Your task to perform on an android device: open app "DuckDuckGo Privacy Browser" (install if not already installed) Image 0: 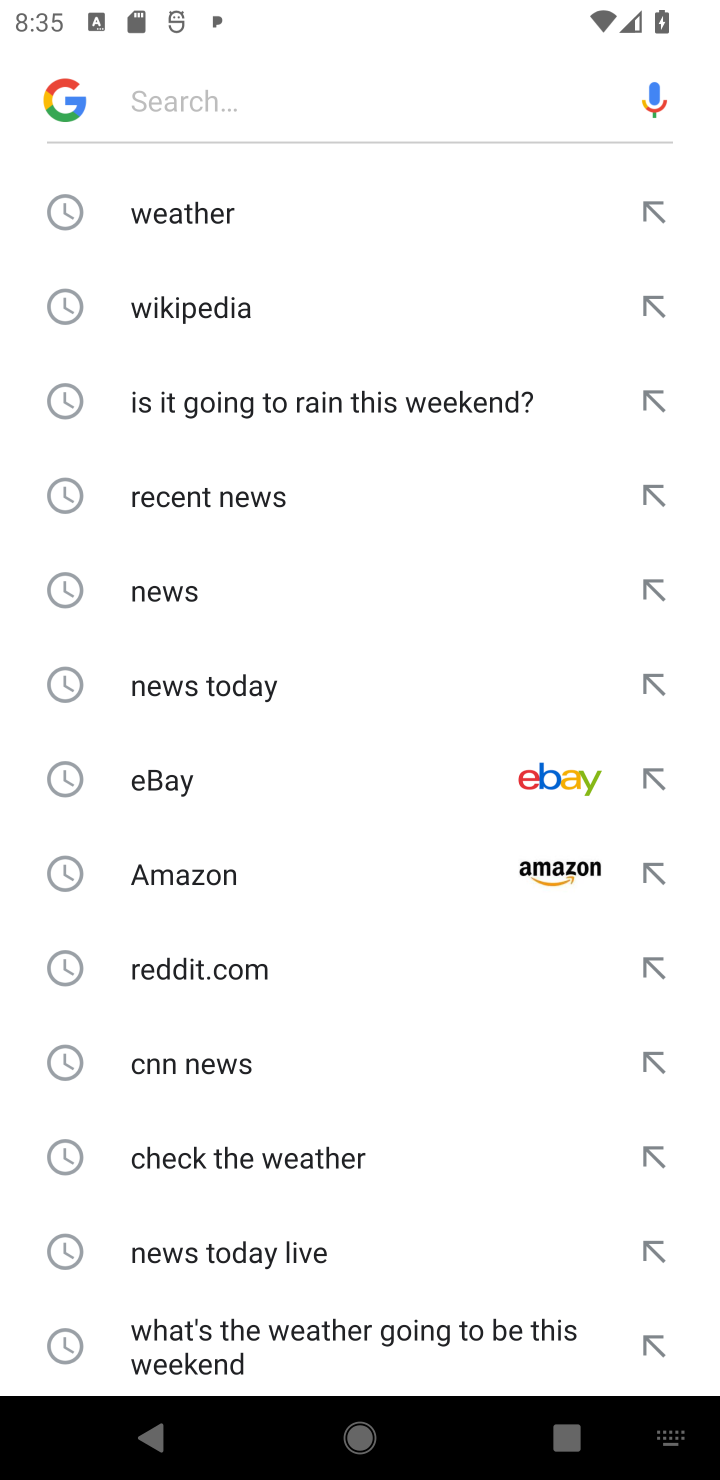
Step 0: press home button
Your task to perform on an android device: open app "DuckDuckGo Privacy Browser" (install if not already installed) Image 1: 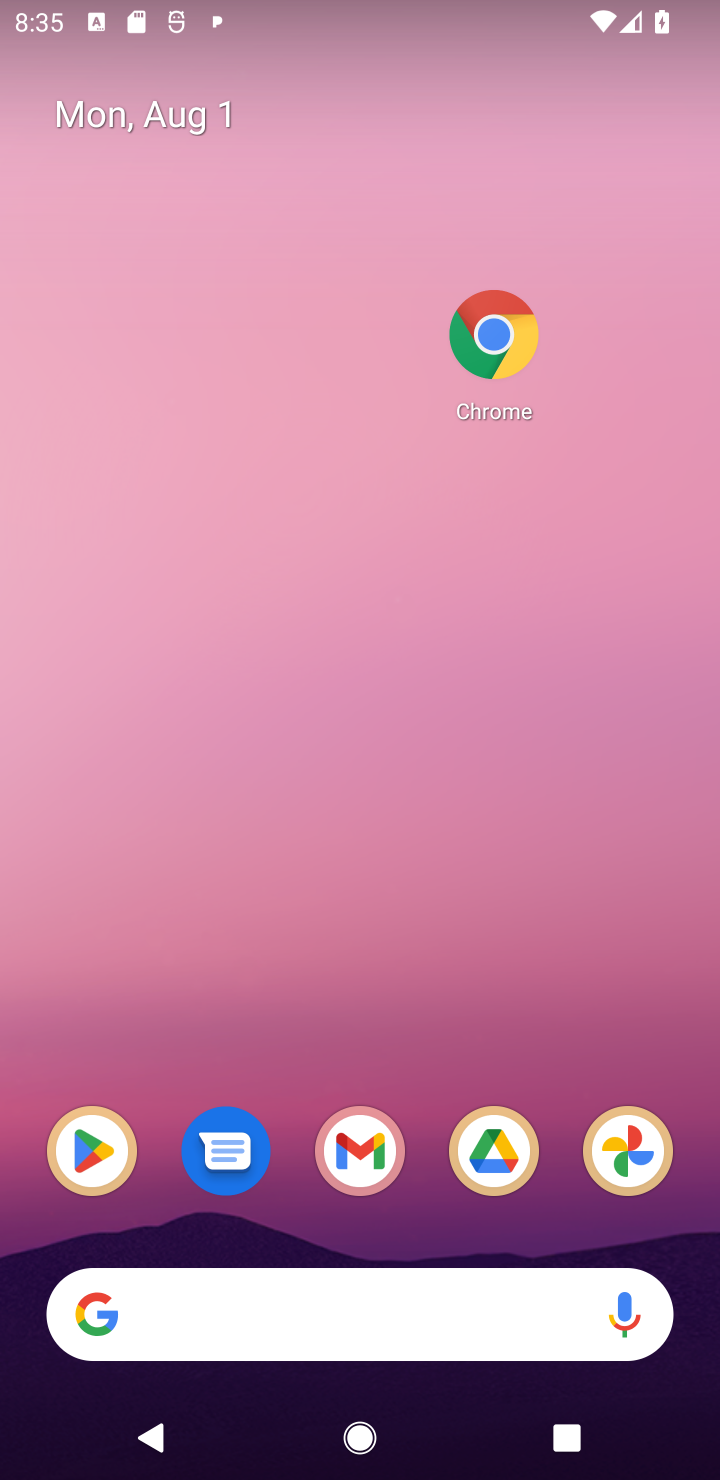
Step 1: click (81, 1165)
Your task to perform on an android device: open app "DuckDuckGo Privacy Browser" (install if not already installed) Image 2: 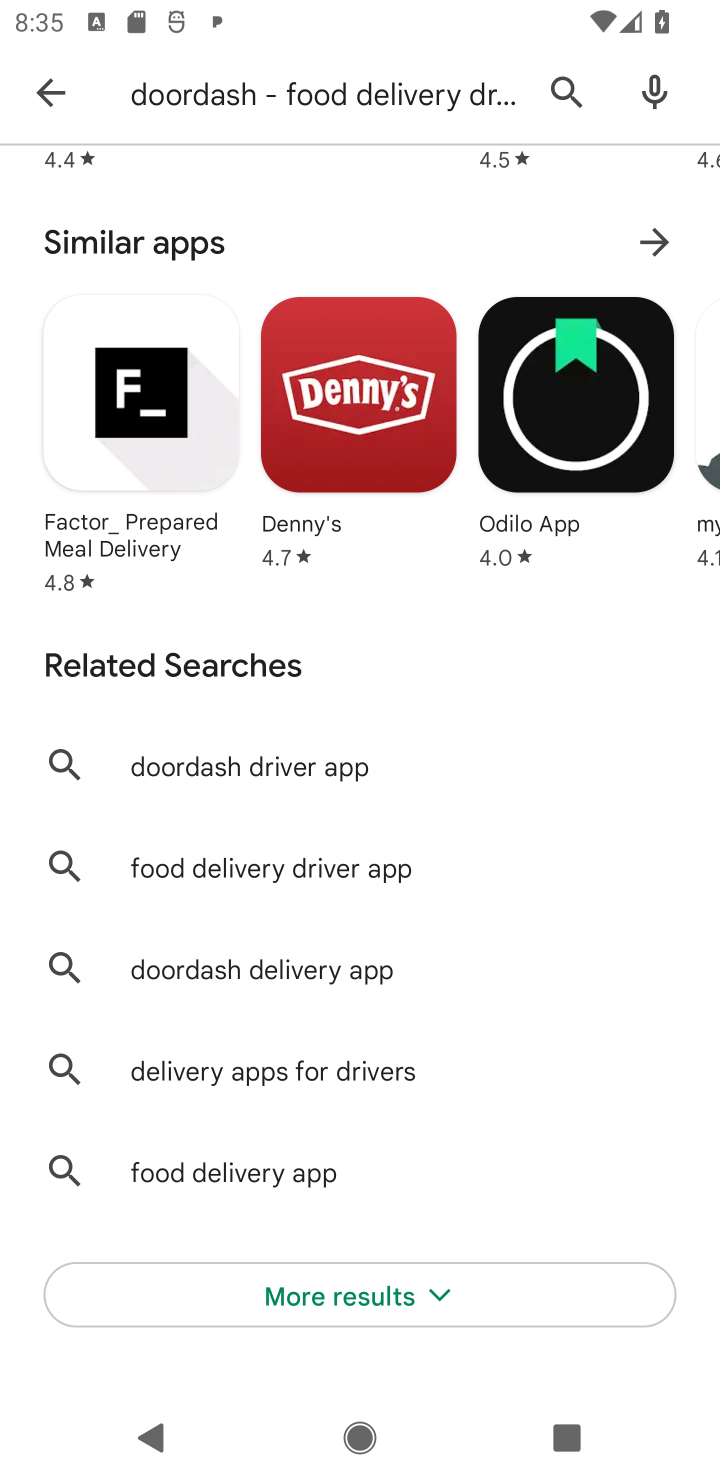
Step 2: click (548, 83)
Your task to perform on an android device: open app "DuckDuckGo Privacy Browser" (install if not already installed) Image 3: 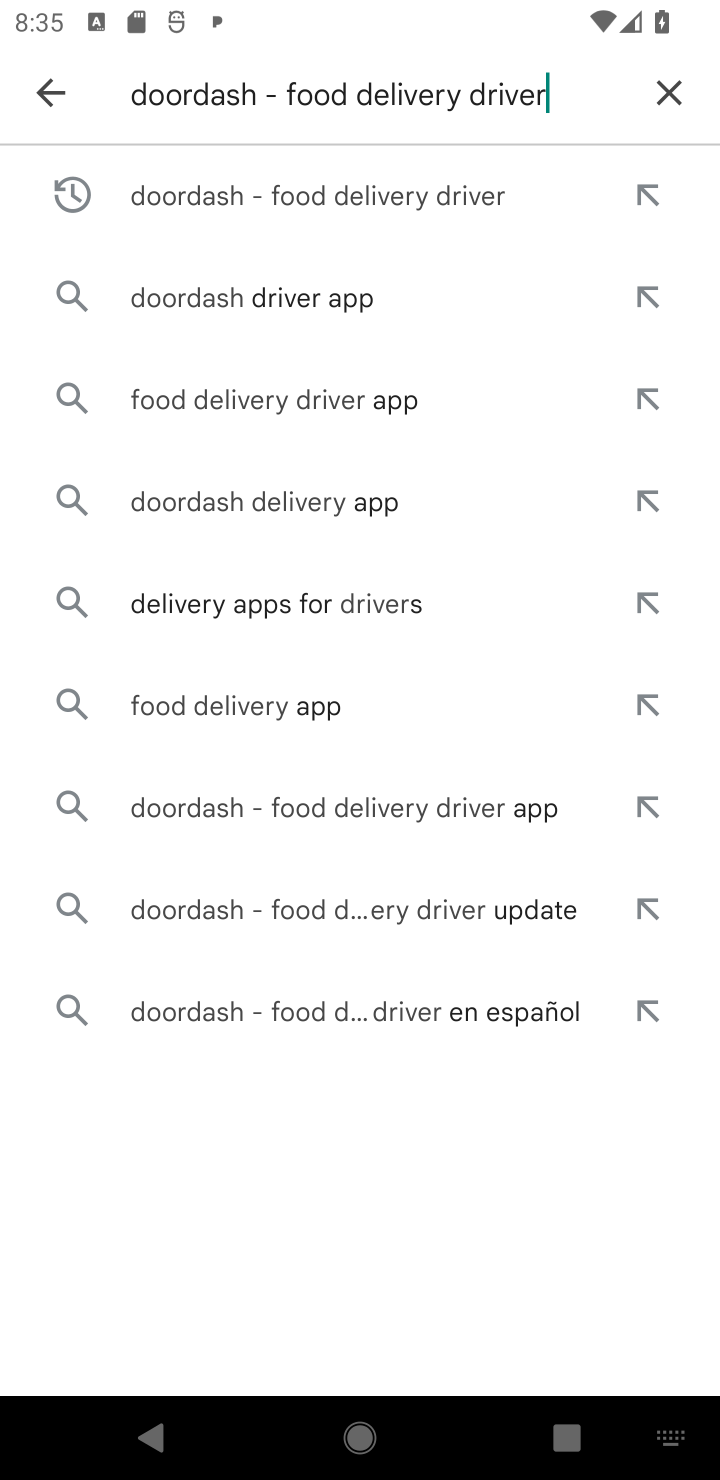
Step 3: click (672, 92)
Your task to perform on an android device: open app "DuckDuckGo Privacy Browser" (install if not already installed) Image 4: 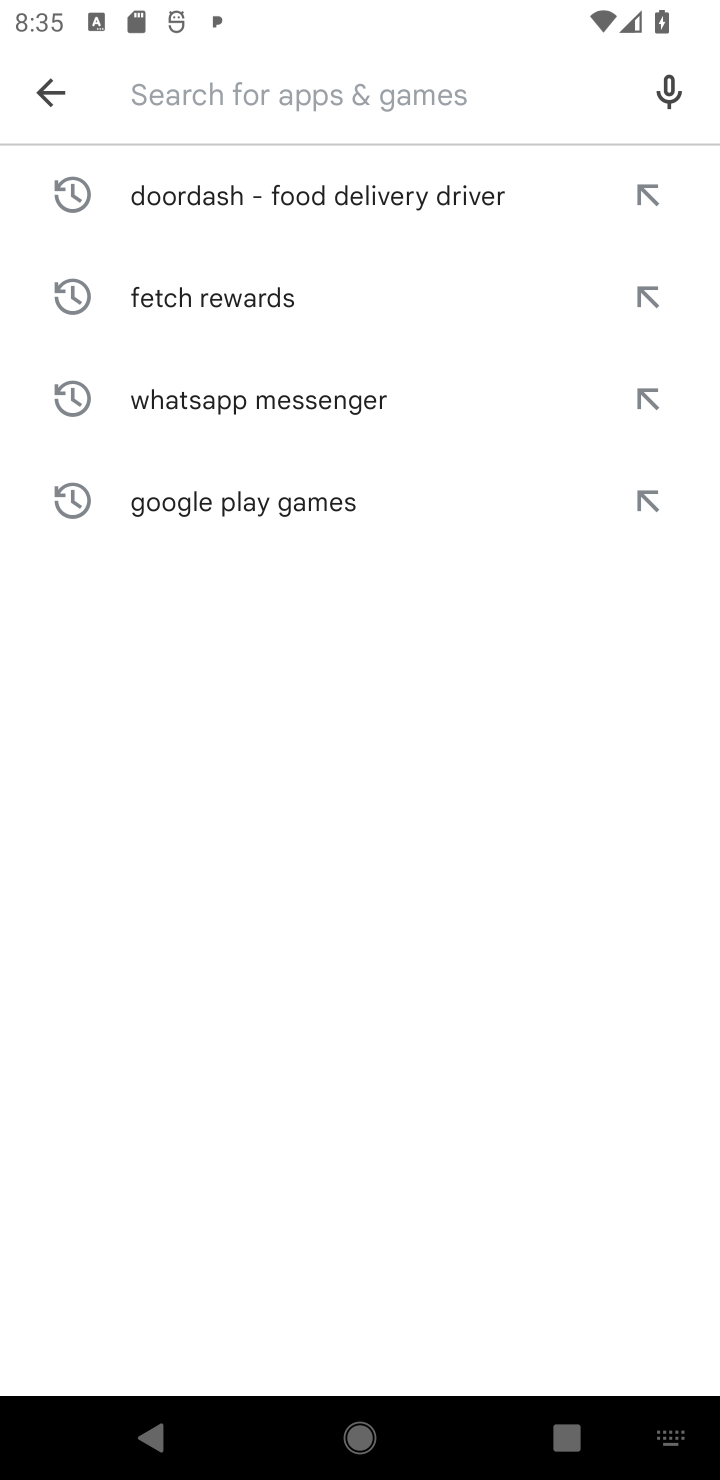
Step 4: type "DuckDuckGo Privacy Browser"
Your task to perform on an android device: open app "DuckDuckGo Privacy Browser" (install if not already installed) Image 5: 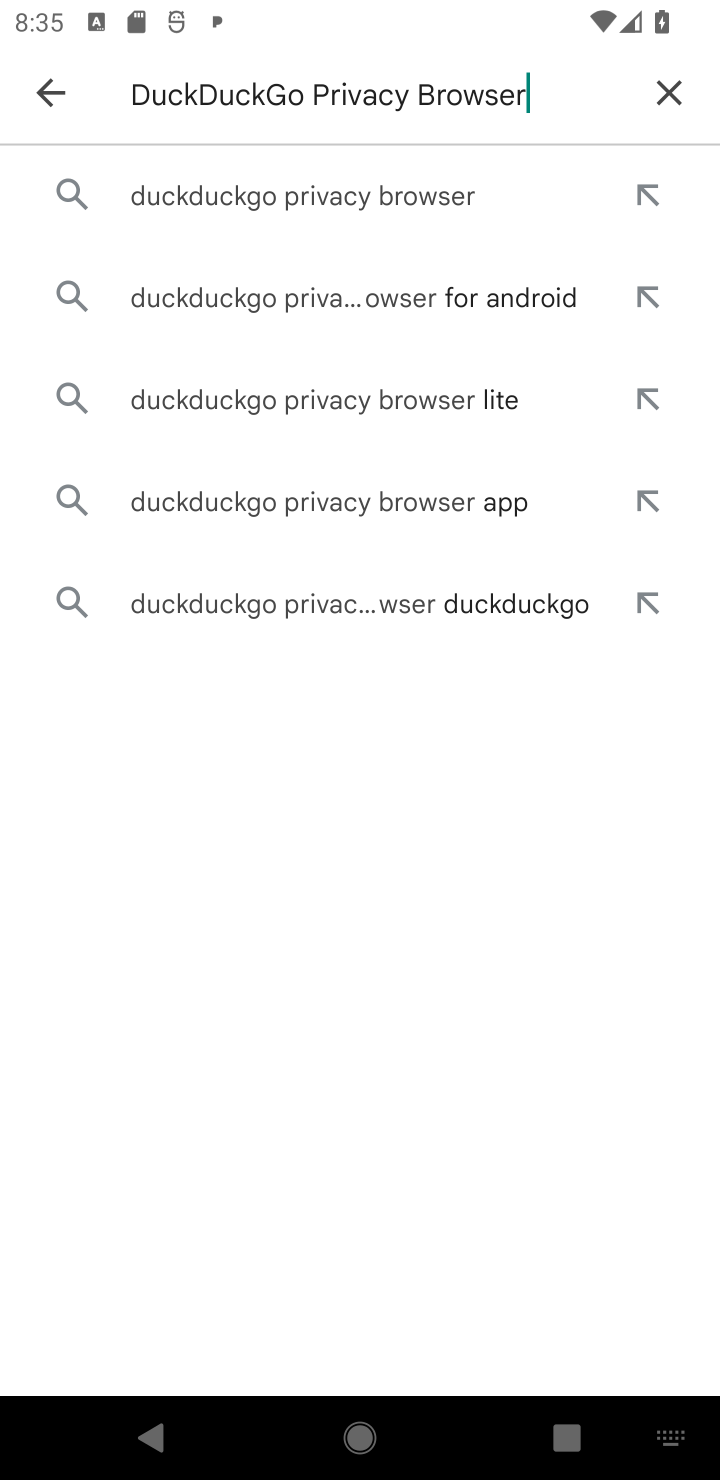
Step 5: click (288, 212)
Your task to perform on an android device: open app "DuckDuckGo Privacy Browser" (install if not already installed) Image 6: 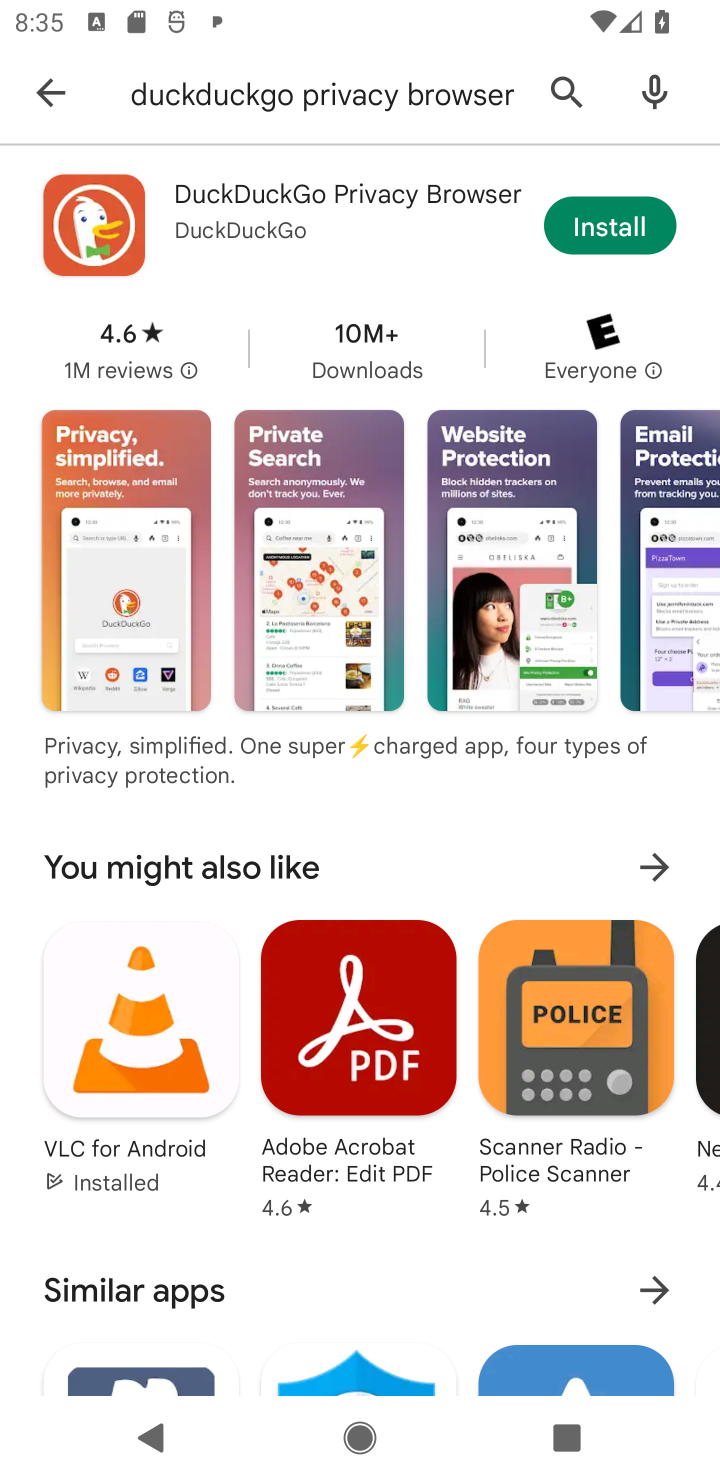
Step 6: click (612, 237)
Your task to perform on an android device: open app "DuckDuckGo Privacy Browser" (install if not already installed) Image 7: 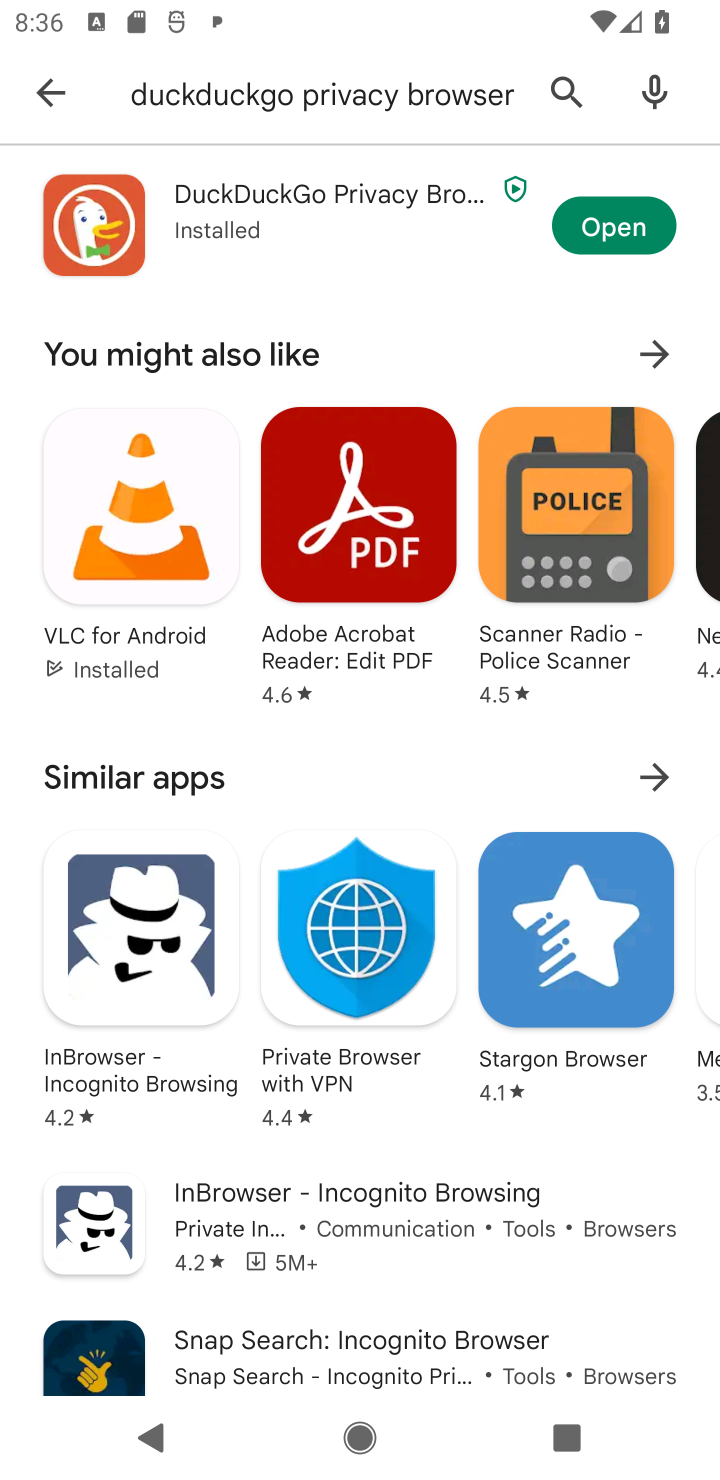
Step 7: click (603, 245)
Your task to perform on an android device: open app "DuckDuckGo Privacy Browser" (install if not already installed) Image 8: 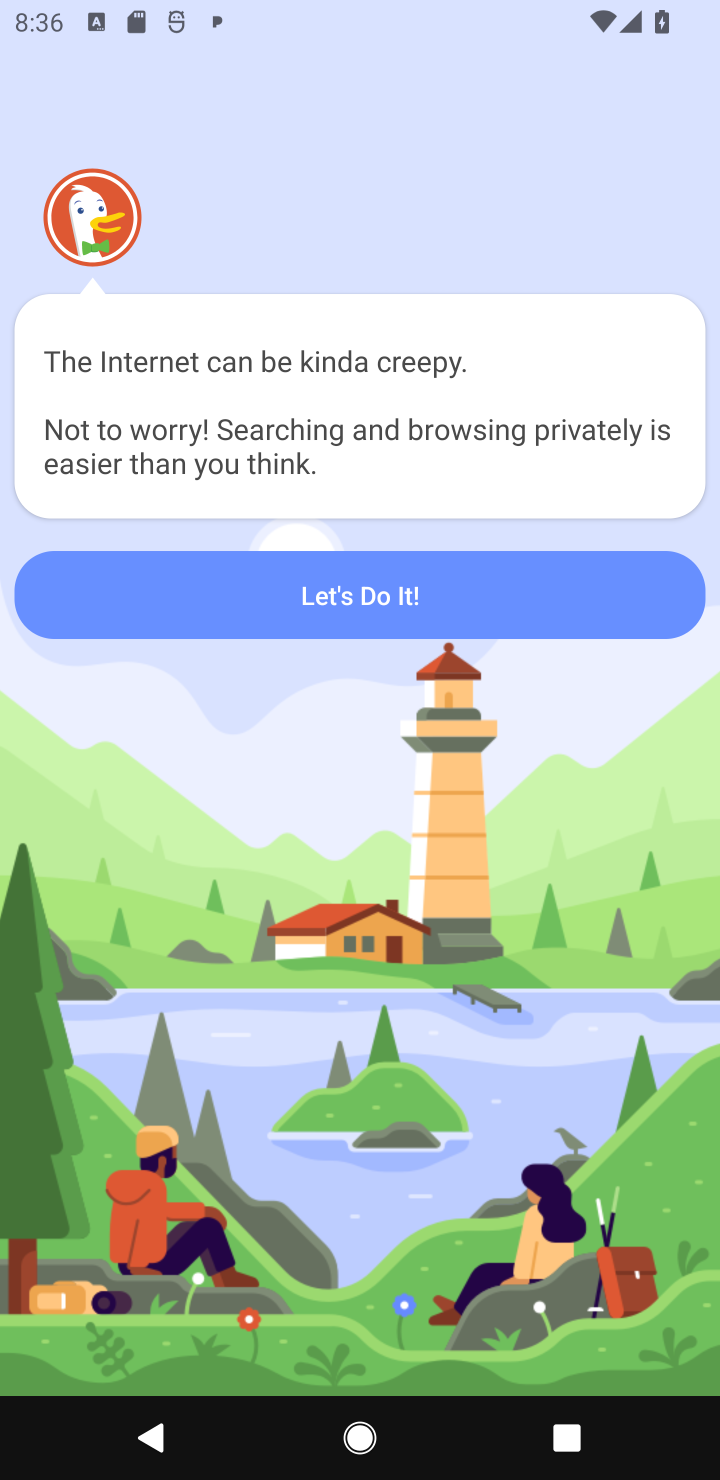
Step 8: task complete